Your task to perform on an android device: Open wifi settings Image 0: 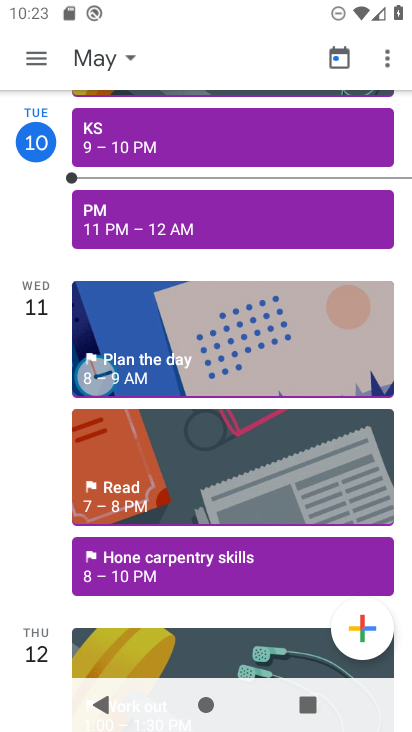
Step 0: press home button
Your task to perform on an android device: Open wifi settings Image 1: 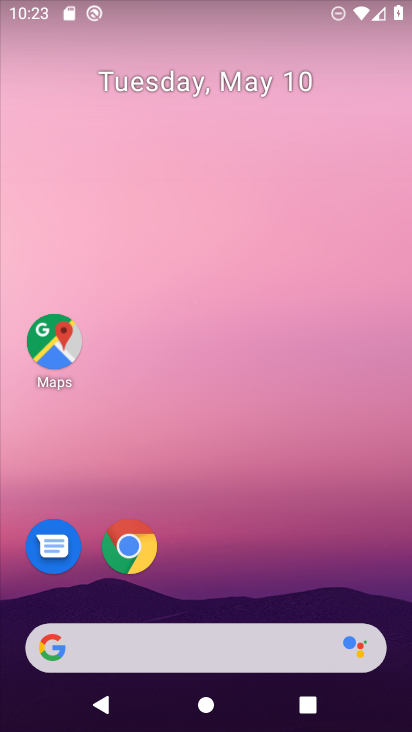
Step 1: drag from (261, 457) to (258, 78)
Your task to perform on an android device: Open wifi settings Image 2: 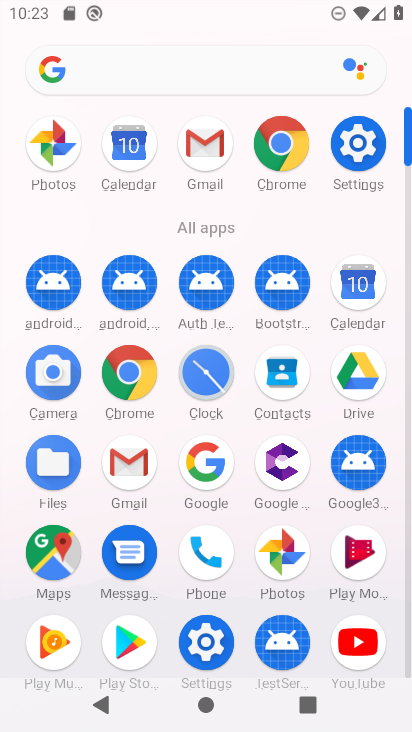
Step 2: click (351, 139)
Your task to perform on an android device: Open wifi settings Image 3: 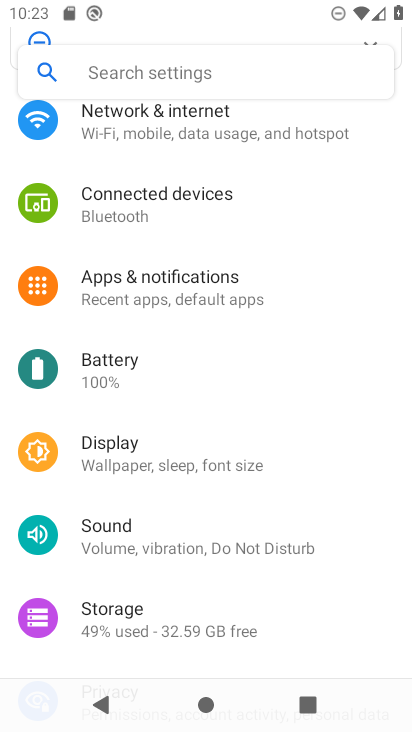
Step 3: click (202, 131)
Your task to perform on an android device: Open wifi settings Image 4: 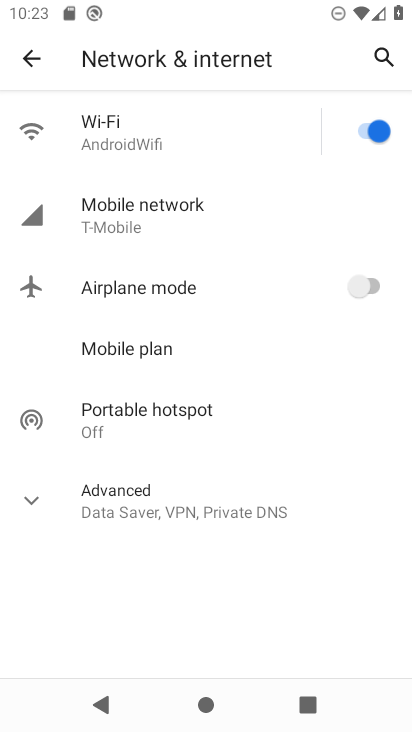
Step 4: click (202, 131)
Your task to perform on an android device: Open wifi settings Image 5: 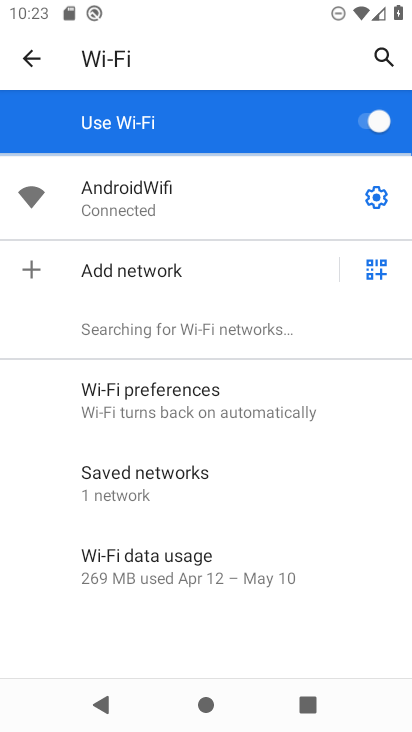
Step 5: click (378, 198)
Your task to perform on an android device: Open wifi settings Image 6: 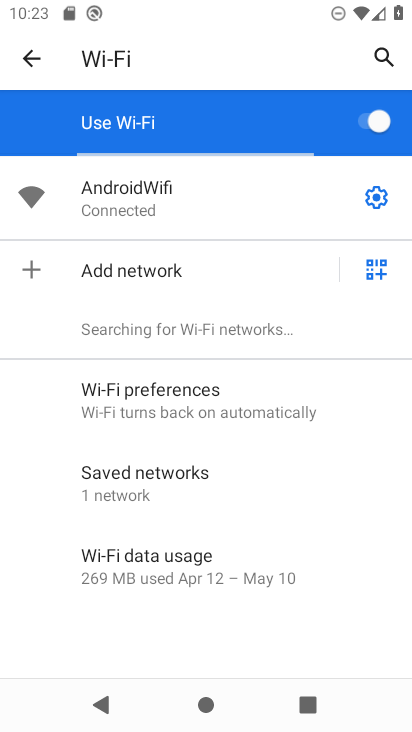
Step 6: click (381, 196)
Your task to perform on an android device: Open wifi settings Image 7: 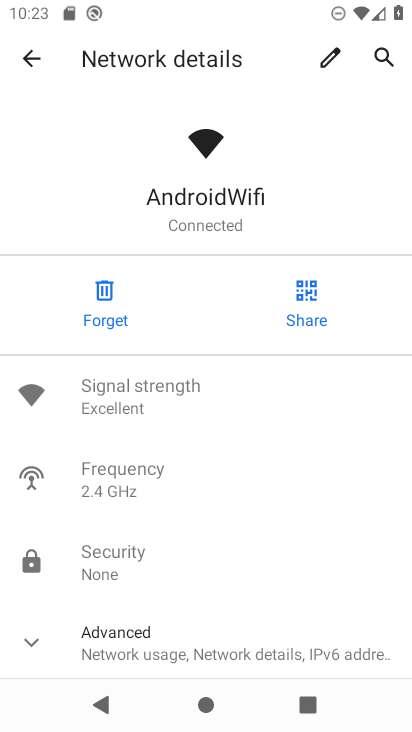
Step 7: task complete